Your task to perform on an android device: uninstall "Gboard" Image 0: 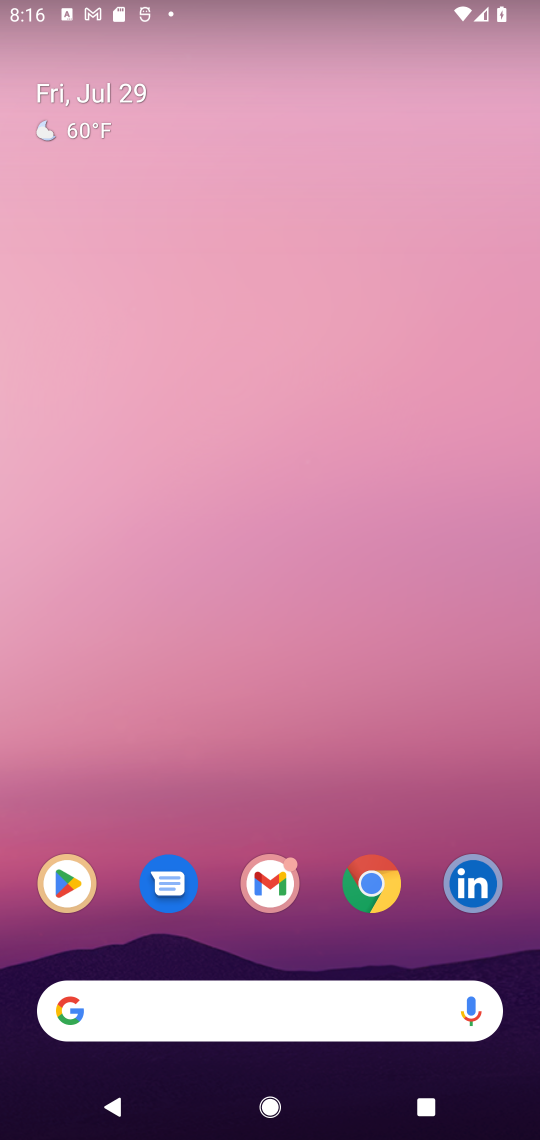
Step 0: click (62, 884)
Your task to perform on an android device: uninstall "Gboard" Image 1: 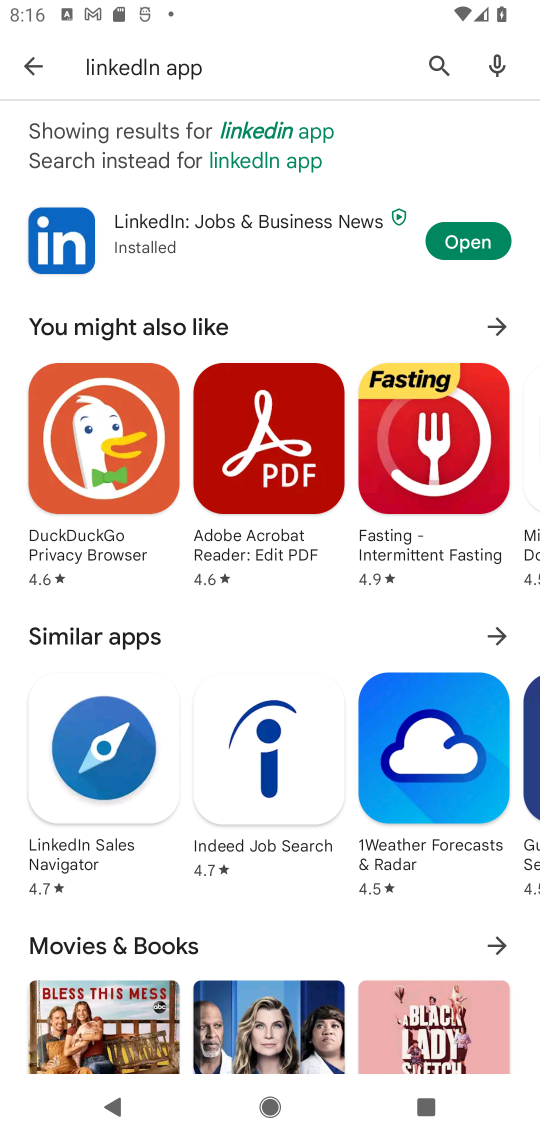
Step 1: click (441, 65)
Your task to perform on an android device: uninstall "Gboard" Image 2: 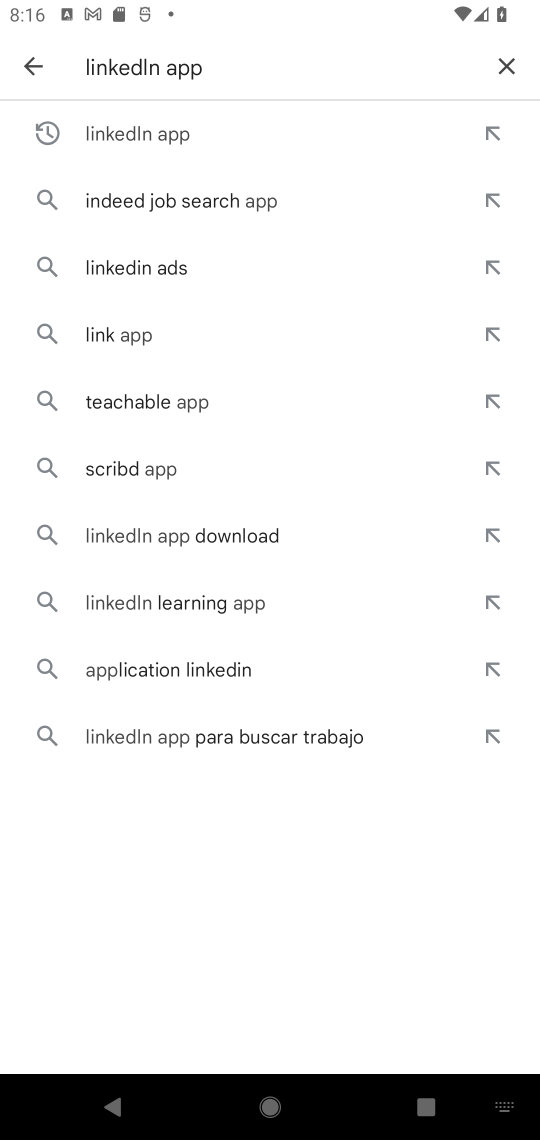
Step 2: click (498, 64)
Your task to perform on an android device: uninstall "Gboard" Image 3: 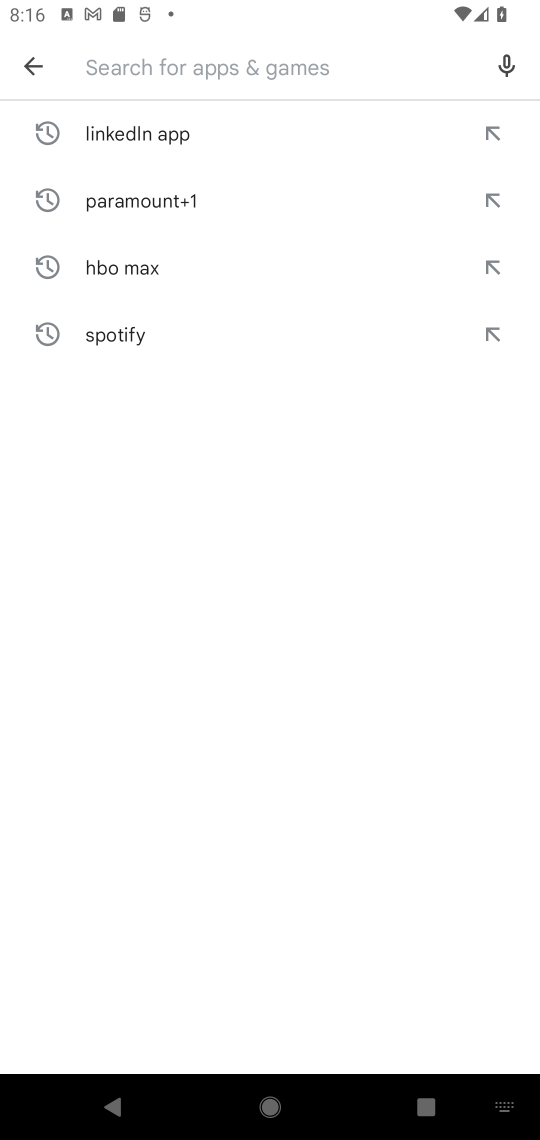
Step 3: click (149, 71)
Your task to perform on an android device: uninstall "Gboard" Image 4: 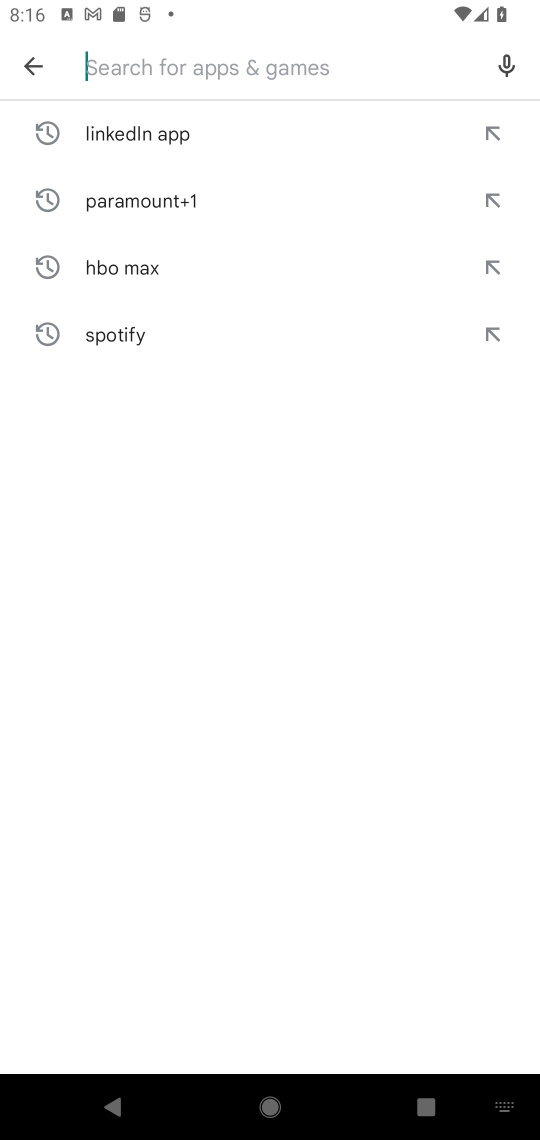
Step 4: type "gboard"
Your task to perform on an android device: uninstall "Gboard" Image 5: 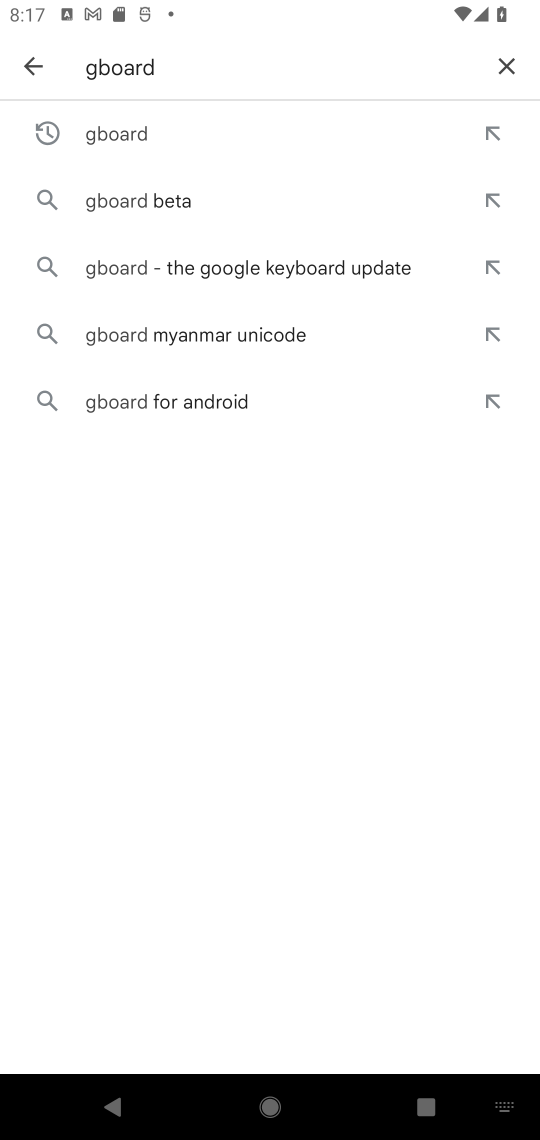
Step 5: click (133, 131)
Your task to perform on an android device: uninstall "Gboard" Image 6: 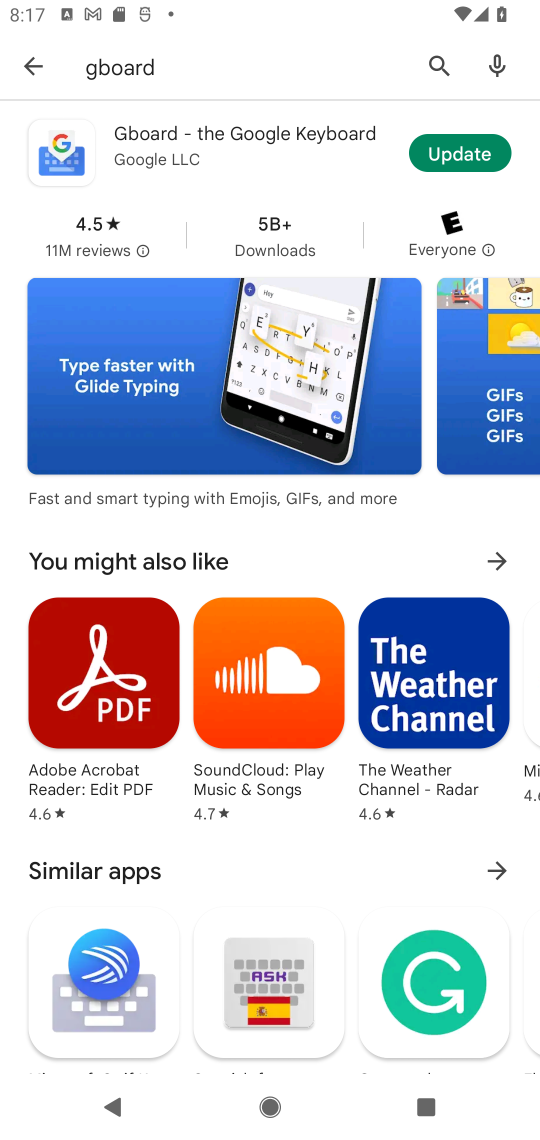
Step 6: click (232, 125)
Your task to perform on an android device: uninstall "Gboard" Image 7: 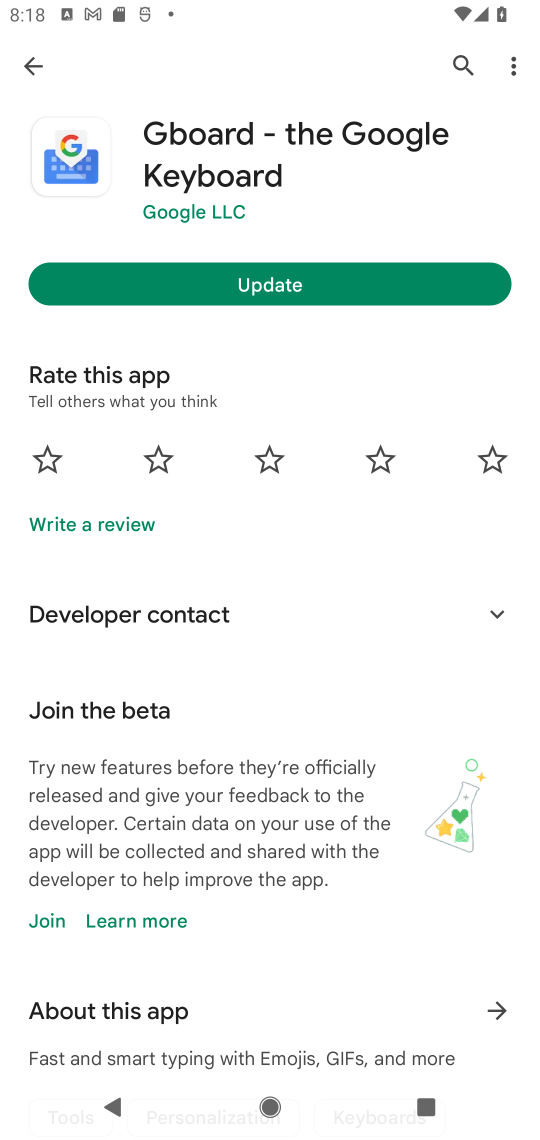
Step 7: task complete